Your task to perform on an android device: change keyboard looks Image 0: 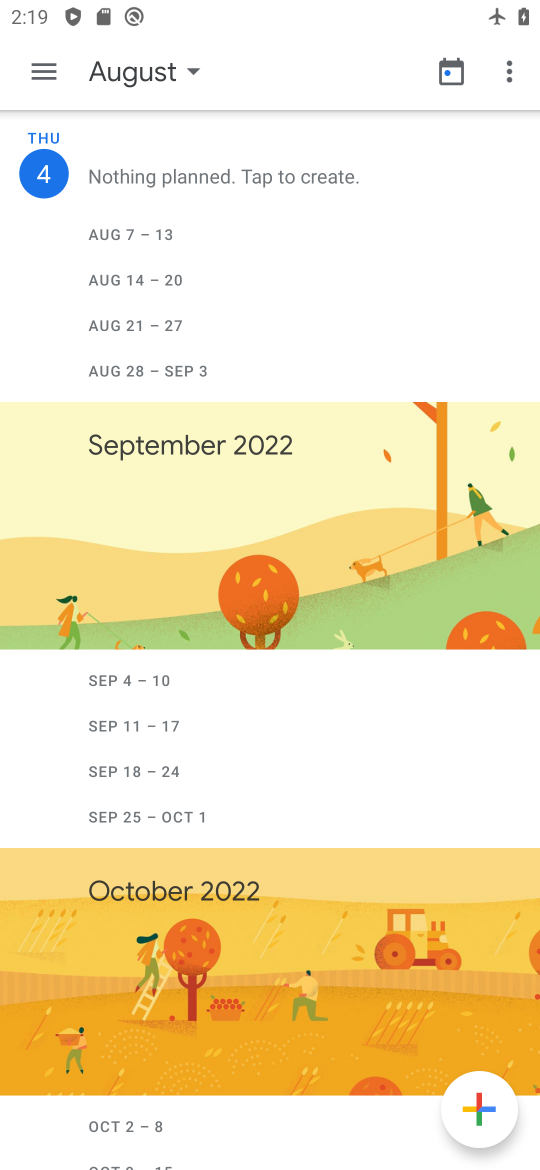
Step 0: press home button
Your task to perform on an android device: change keyboard looks Image 1: 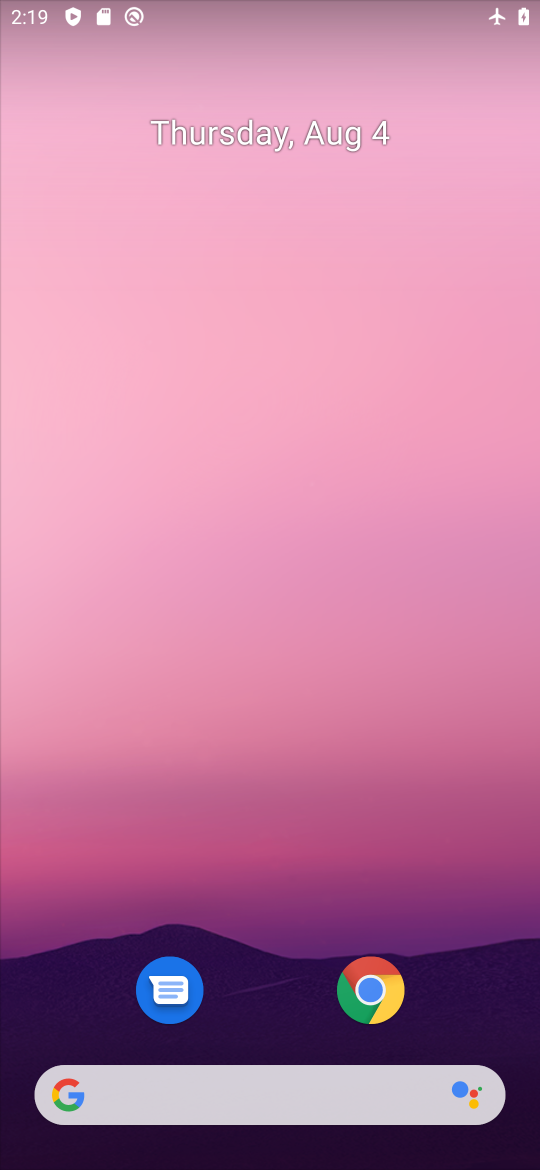
Step 1: drag from (271, 1013) to (257, 8)
Your task to perform on an android device: change keyboard looks Image 2: 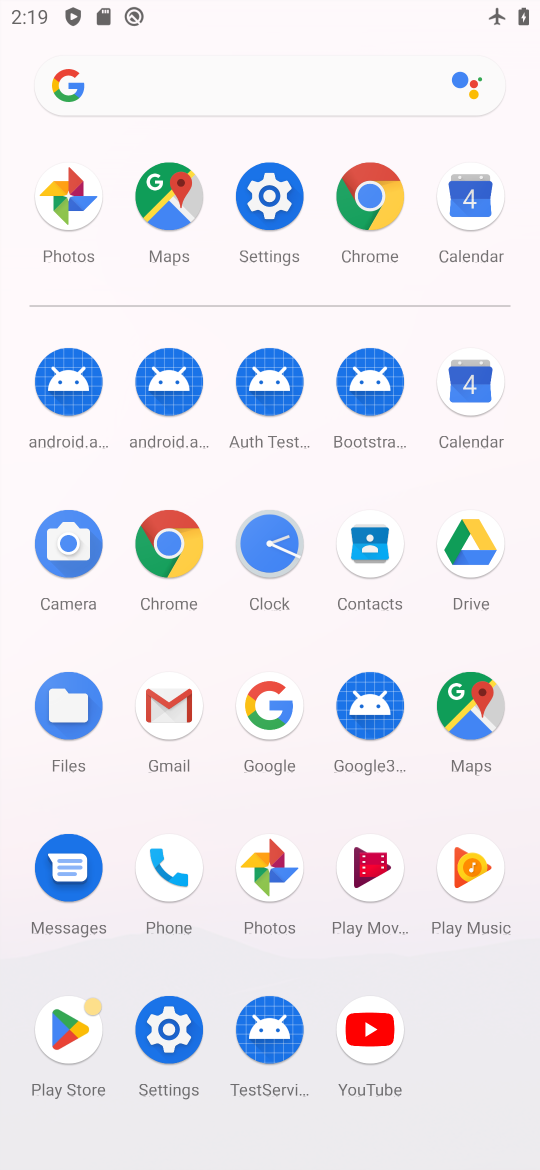
Step 2: click (277, 253)
Your task to perform on an android device: change keyboard looks Image 3: 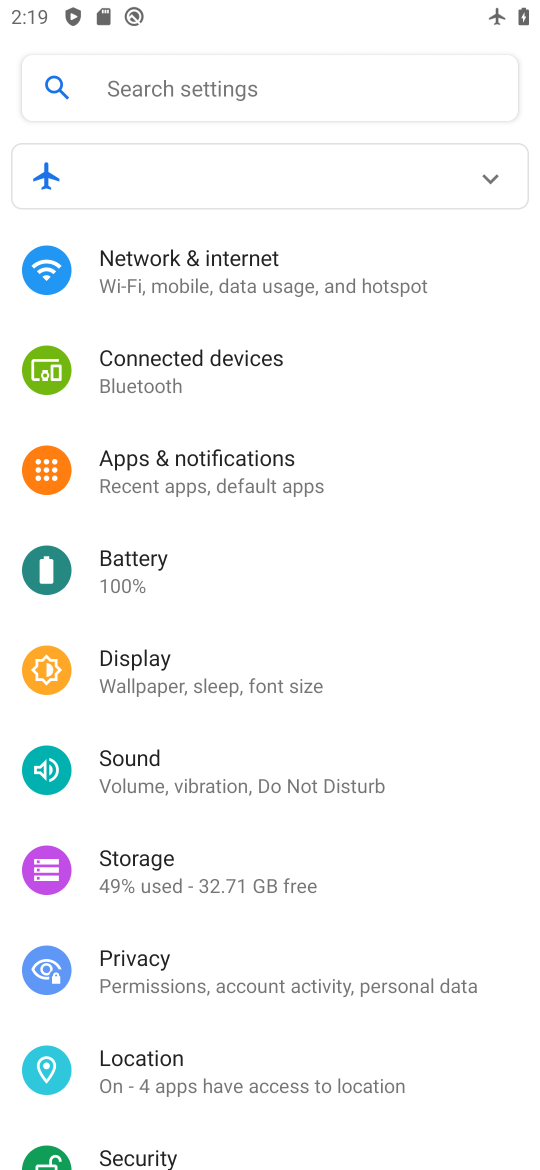
Step 3: drag from (236, 1000) to (238, 254)
Your task to perform on an android device: change keyboard looks Image 4: 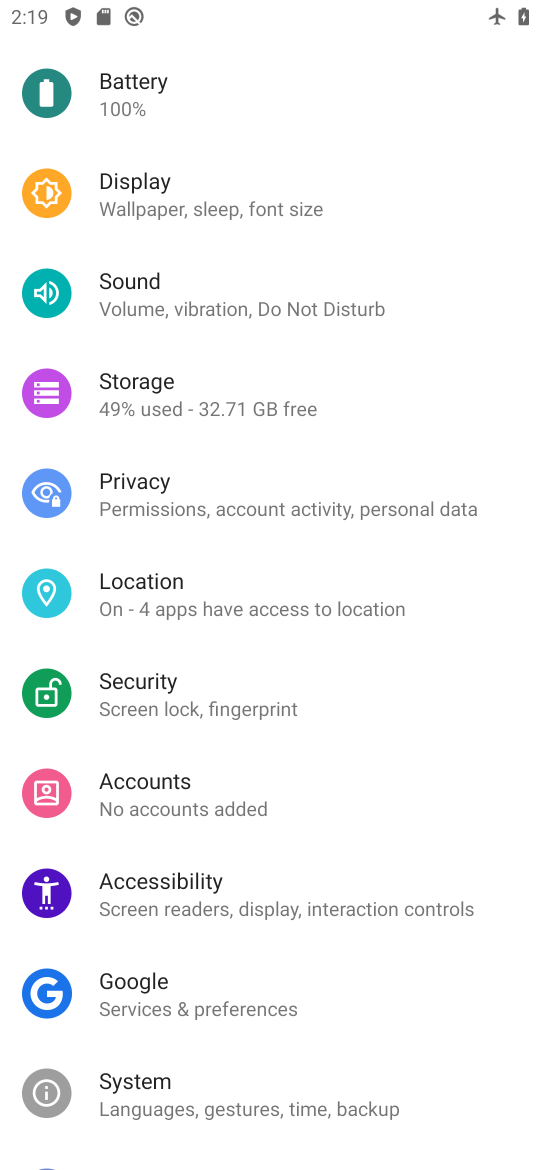
Step 4: drag from (207, 1064) to (174, 654)
Your task to perform on an android device: change keyboard looks Image 5: 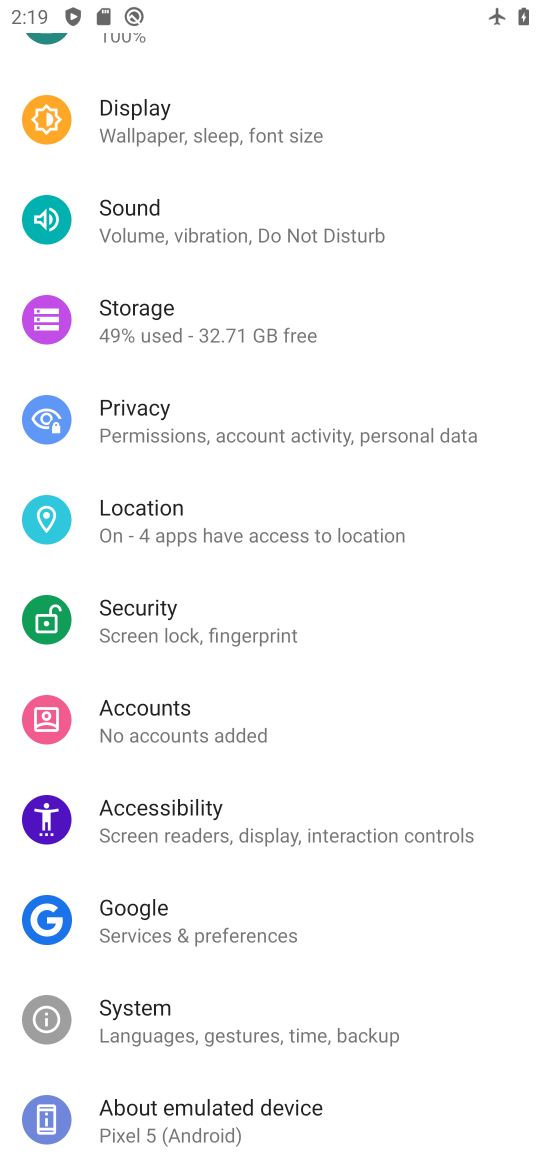
Step 5: click (290, 1026)
Your task to perform on an android device: change keyboard looks Image 6: 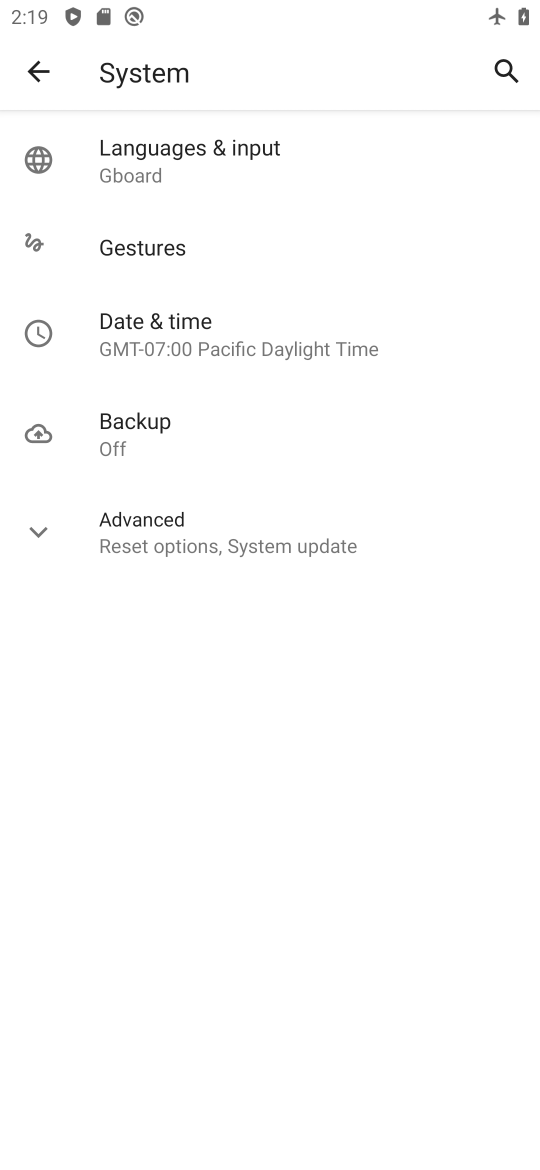
Step 6: click (171, 168)
Your task to perform on an android device: change keyboard looks Image 7: 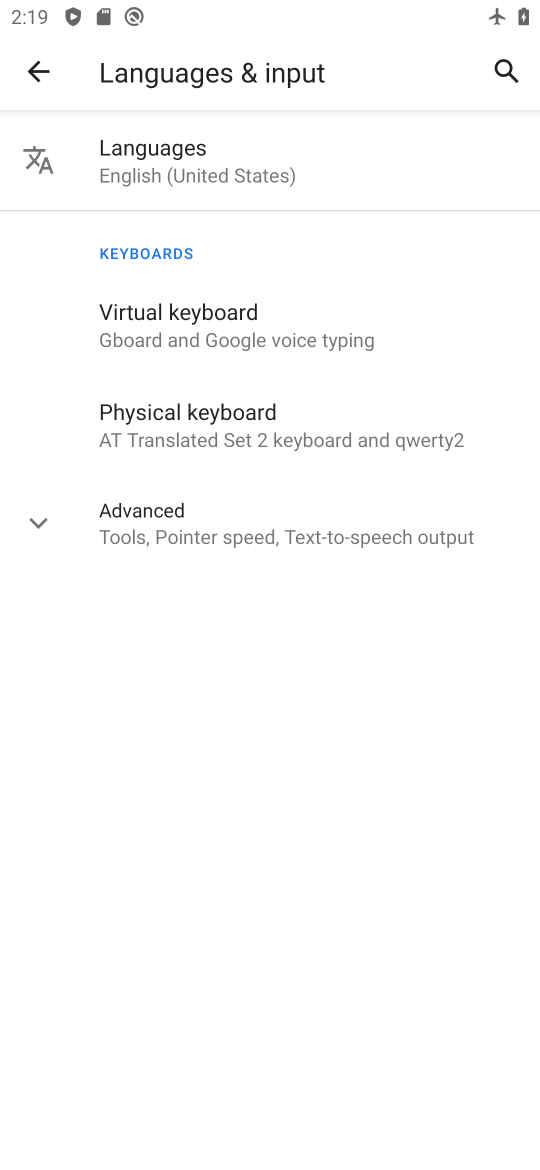
Step 7: click (238, 345)
Your task to perform on an android device: change keyboard looks Image 8: 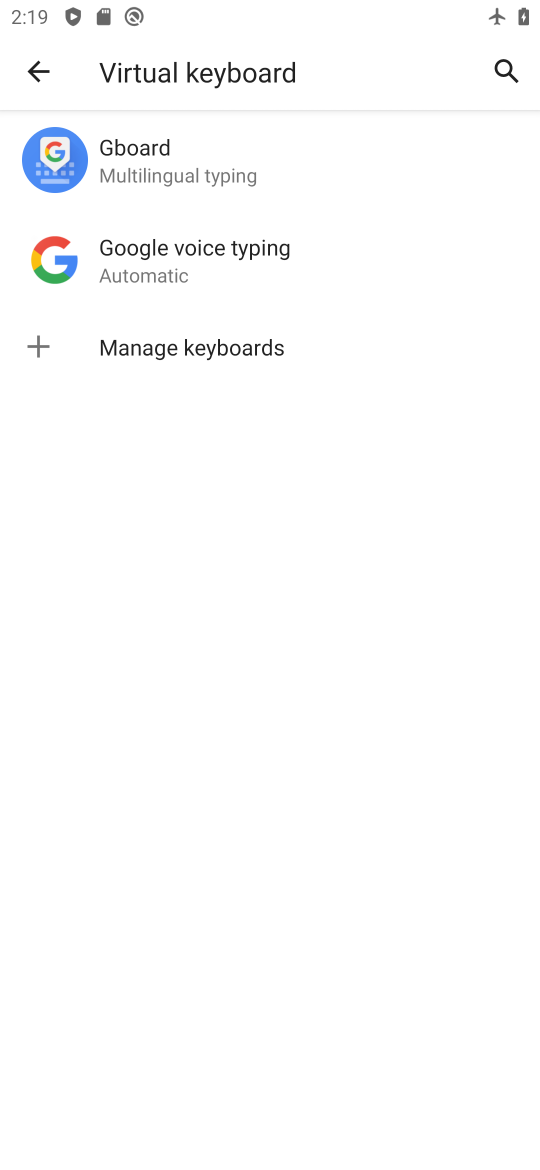
Step 8: task complete